Your task to perform on an android device: Go to internet settings Image 0: 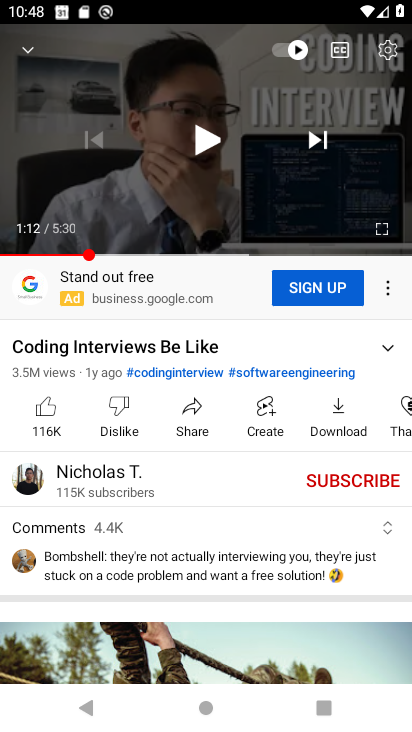
Step 0: drag from (212, 617) to (371, 189)
Your task to perform on an android device: Go to internet settings Image 1: 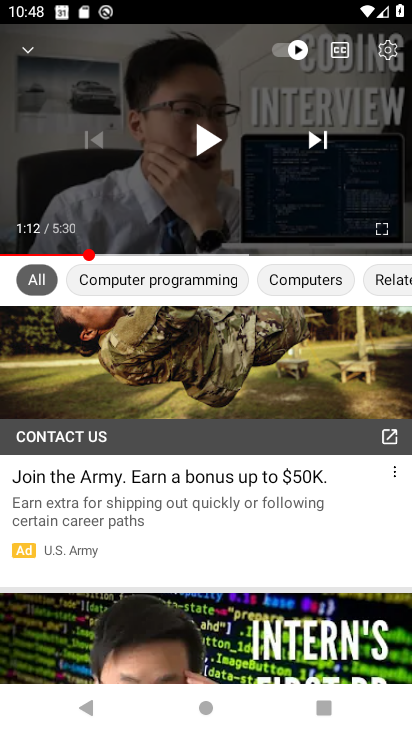
Step 1: press home button
Your task to perform on an android device: Go to internet settings Image 2: 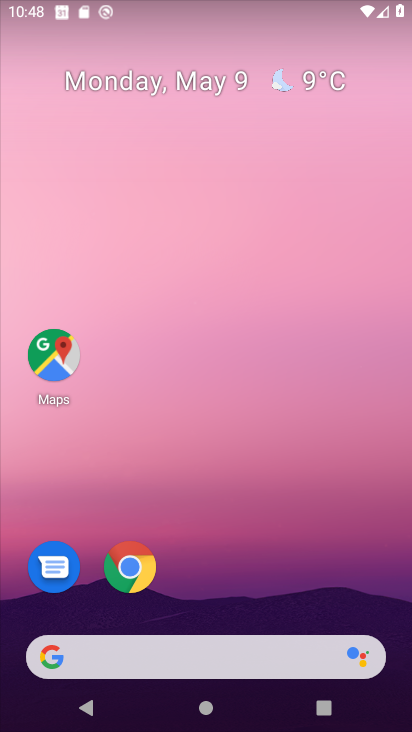
Step 2: drag from (215, 620) to (226, 43)
Your task to perform on an android device: Go to internet settings Image 3: 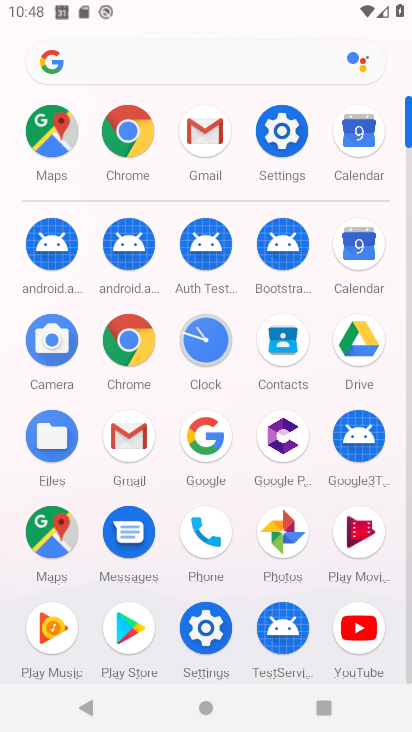
Step 3: click (277, 125)
Your task to perform on an android device: Go to internet settings Image 4: 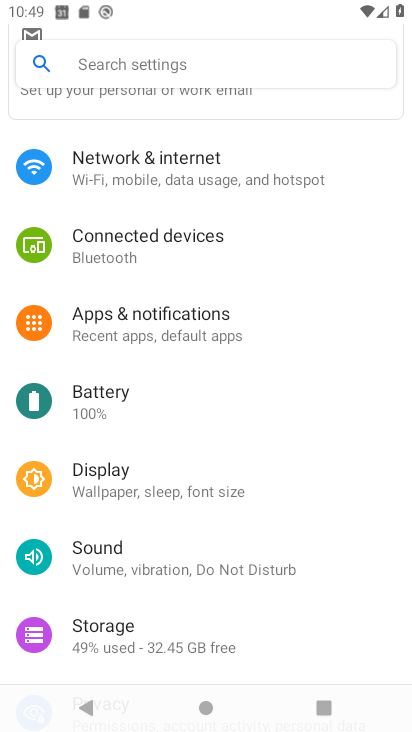
Step 4: click (229, 168)
Your task to perform on an android device: Go to internet settings Image 5: 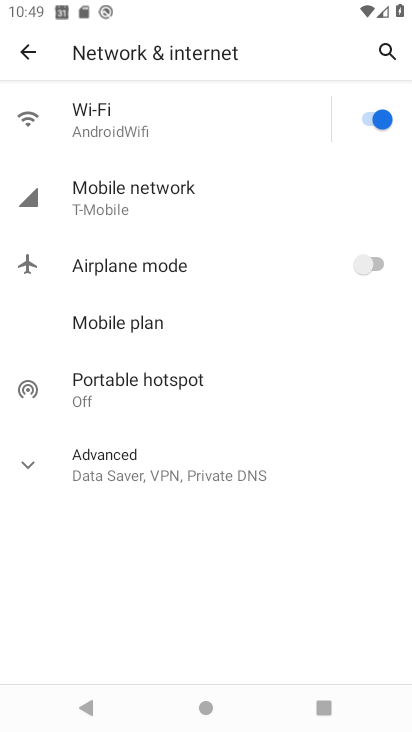
Step 5: click (30, 463)
Your task to perform on an android device: Go to internet settings Image 6: 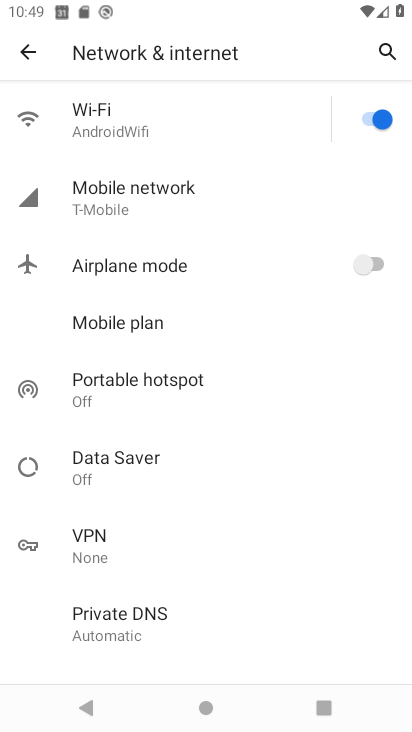
Step 6: task complete